Your task to perform on an android device: change text size in settings app Image 0: 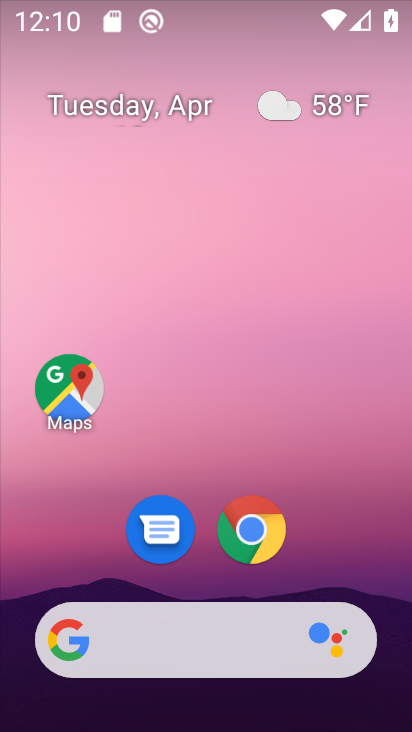
Step 0: drag from (172, 571) to (220, 114)
Your task to perform on an android device: change text size in settings app Image 1: 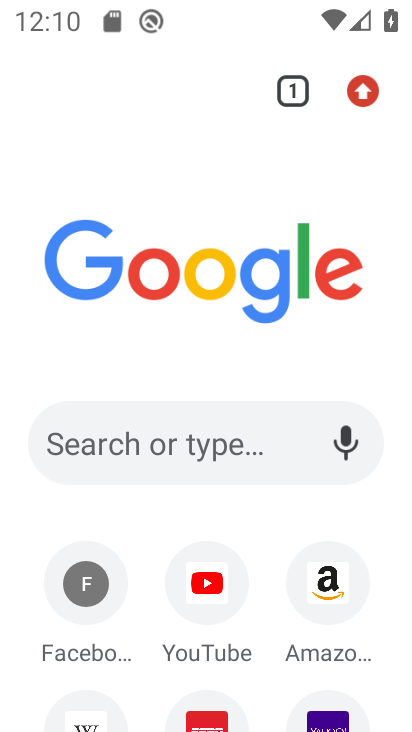
Step 1: press back button
Your task to perform on an android device: change text size in settings app Image 2: 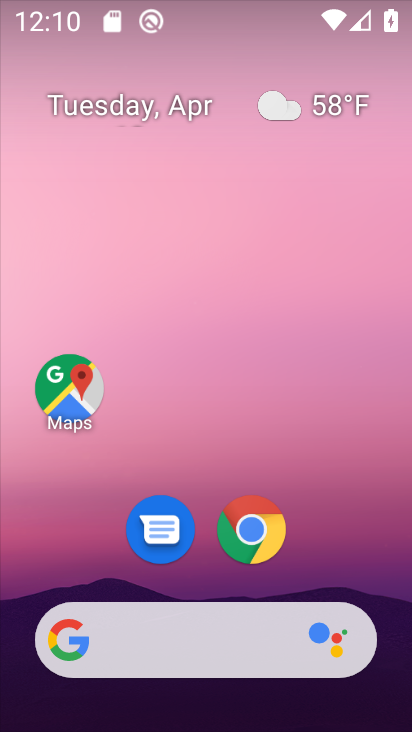
Step 2: drag from (284, 144) to (294, 82)
Your task to perform on an android device: change text size in settings app Image 3: 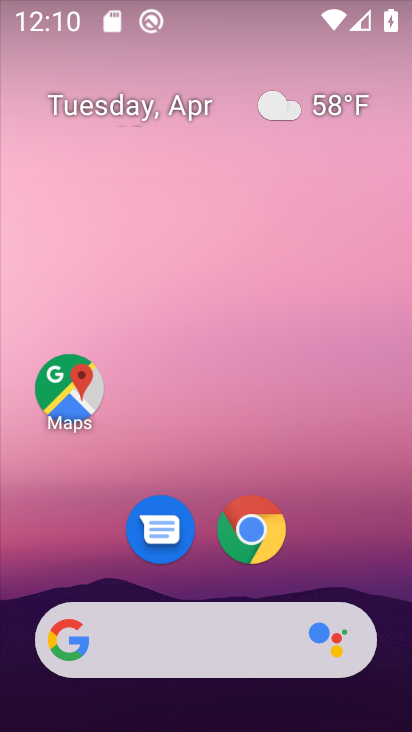
Step 3: drag from (289, 482) to (368, 25)
Your task to perform on an android device: change text size in settings app Image 4: 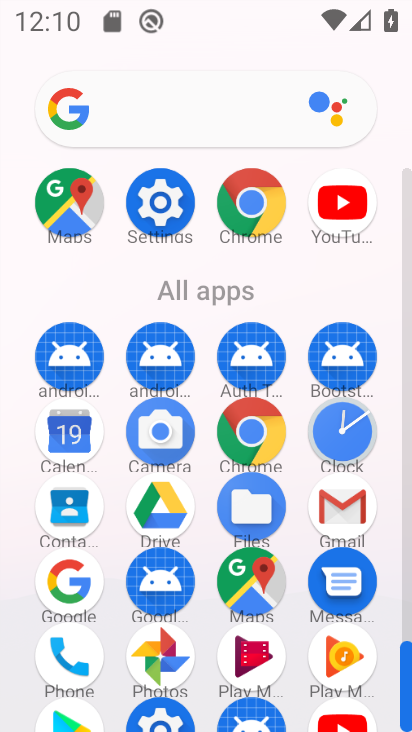
Step 4: drag from (200, 623) to (231, 289)
Your task to perform on an android device: change text size in settings app Image 5: 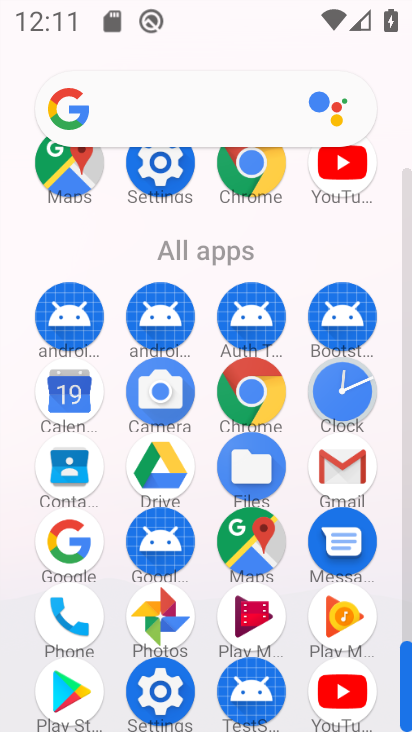
Step 5: click (159, 677)
Your task to perform on an android device: change text size in settings app Image 6: 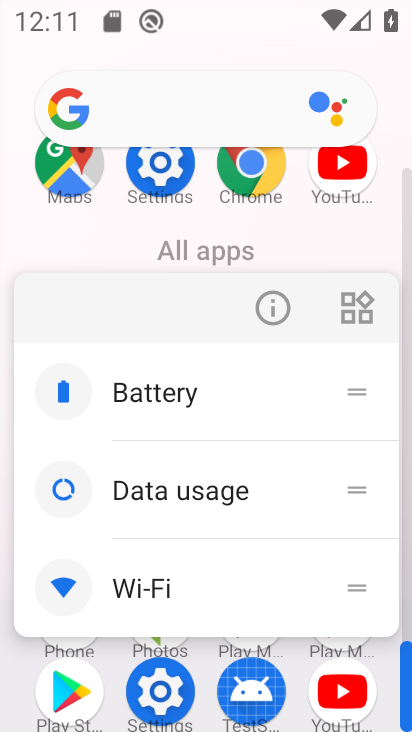
Step 6: click (159, 695)
Your task to perform on an android device: change text size in settings app Image 7: 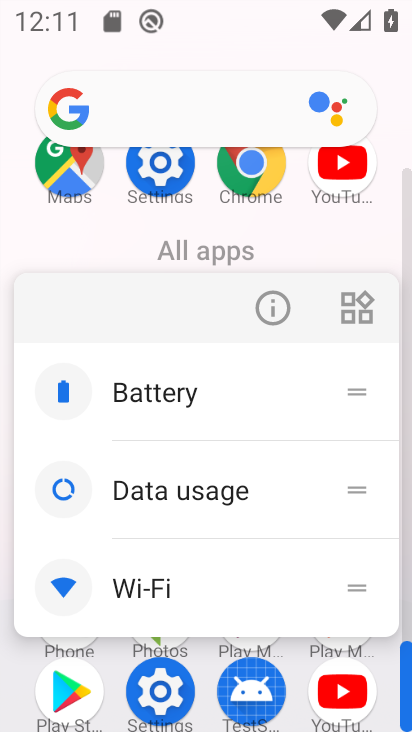
Step 7: click (158, 692)
Your task to perform on an android device: change text size in settings app Image 8: 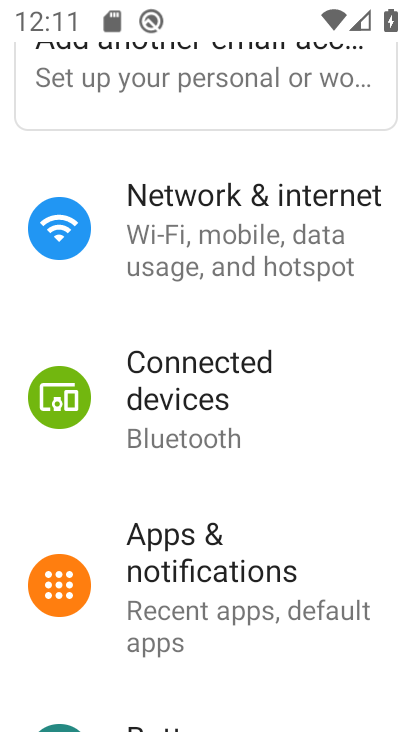
Step 8: drag from (207, 564) to (307, 176)
Your task to perform on an android device: change text size in settings app Image 9: 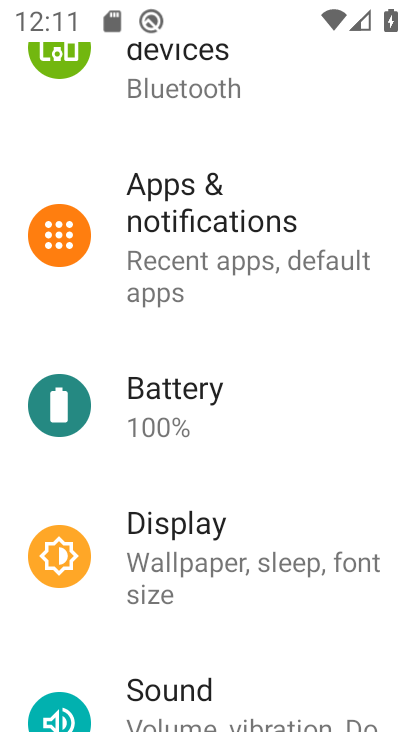
Step 9: click (221, 583)
Your task to perform on an android device: change text size in settings app Image 10: 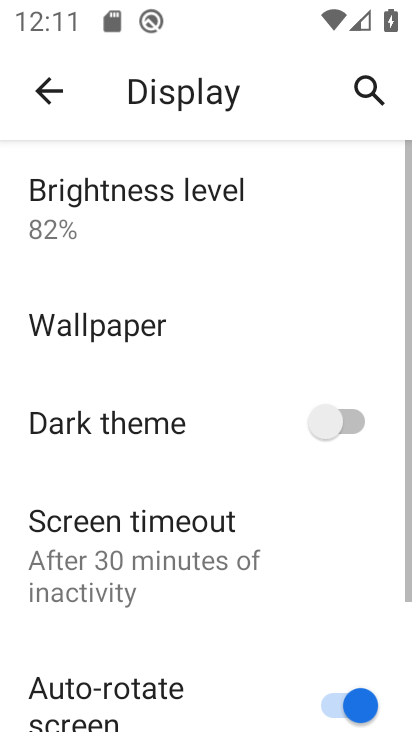
Step 10: drag from (175, 616) to (264, 205)
Your task to perform on an android device: change text size in settings app Image 11: 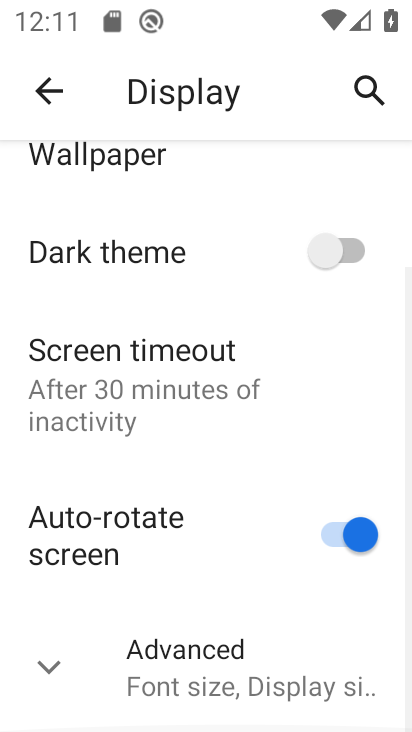
Step 11: click (188, 631)
Your task to perform on an android device: change text size in settings app Image 12: 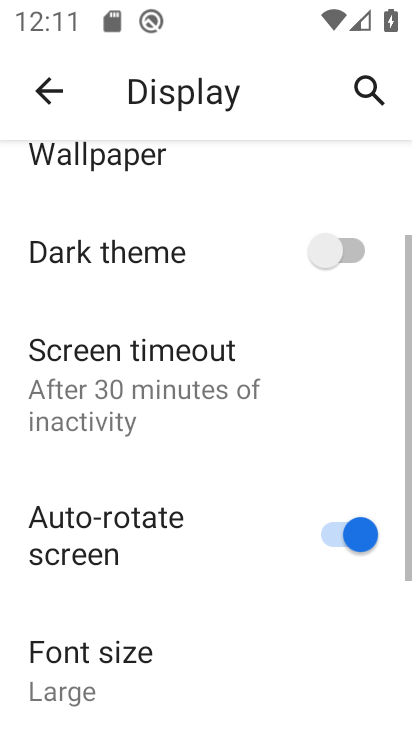
Step 12: drag from (208, 677) to (250, 392)
Your task to perform on an android device: change text size in settings app Image 13: 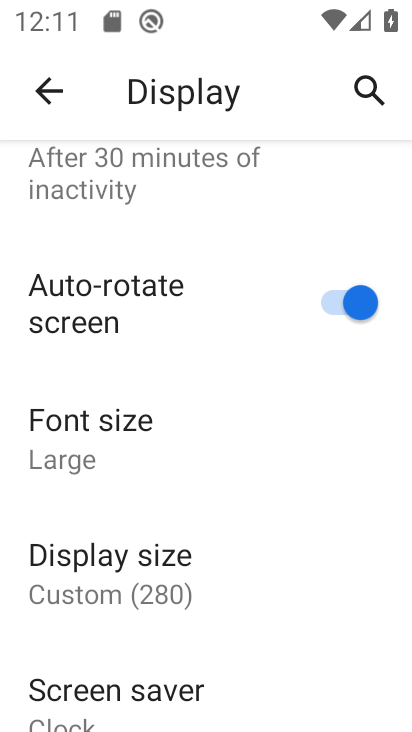
Step 13: click (146, 421)
Your task to perform on an android device: change text size in settings app Image 14: 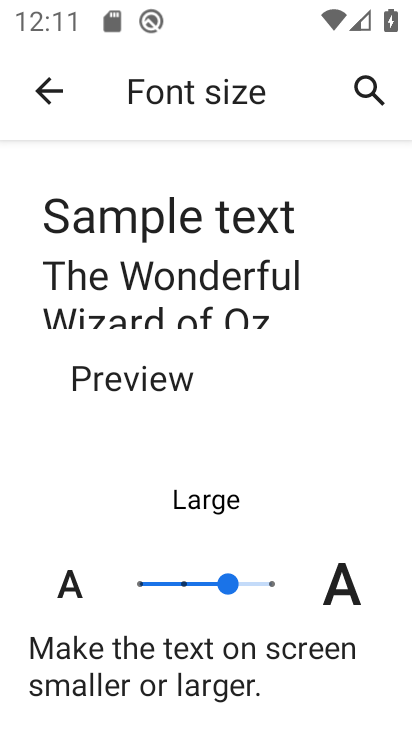
Step 14: task complete